Your task to perform on an android device: Open notification settings Image 0: 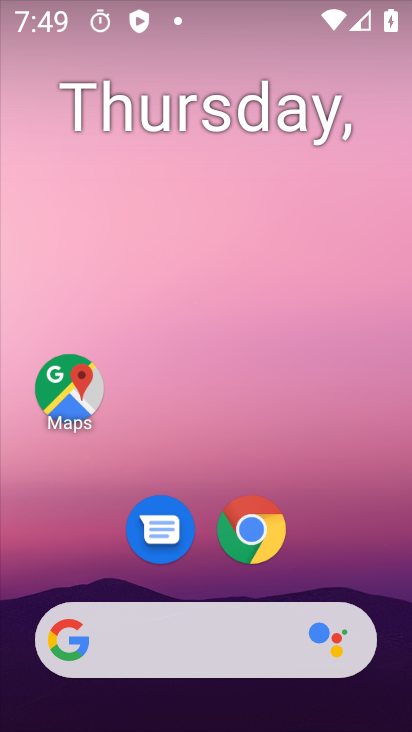
Step 0: drag from (383, 638) to (364, 124)
Your task to perform on an android device: Open notification settings Image 1: 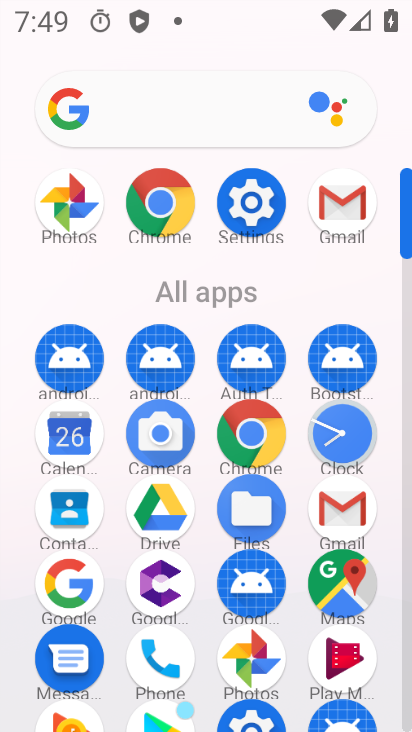
Step 1: click (251, 205)
Your task to perform on an android device: Open notification settings Image 2: 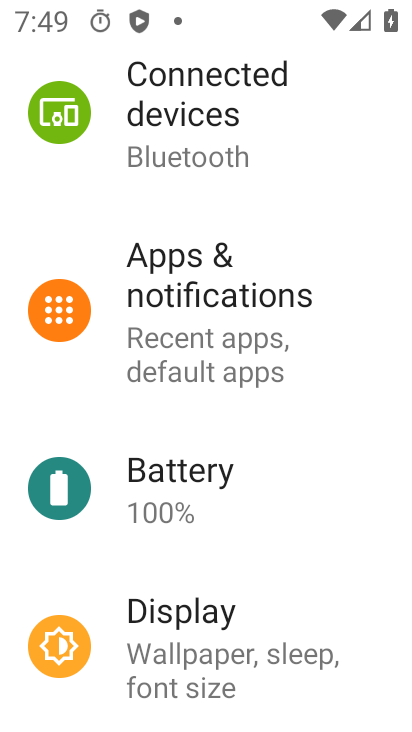
Step 2: click (193, 276)
Your task to perform on an android device: Open notification settings Image 3: 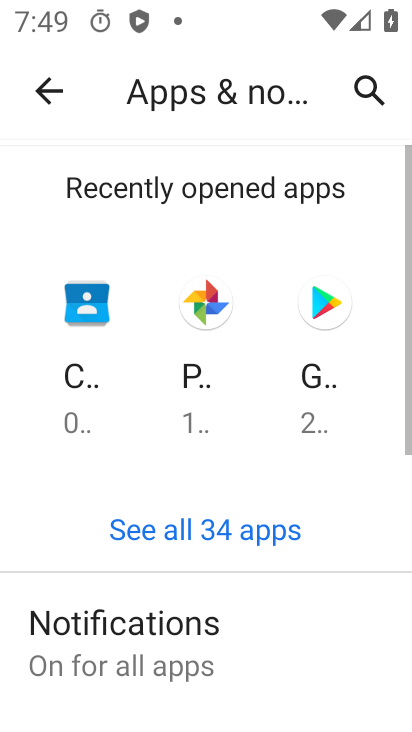
Step 3: click (145, 639)
Your task to perform on an android device: Open notification settings Image 4: 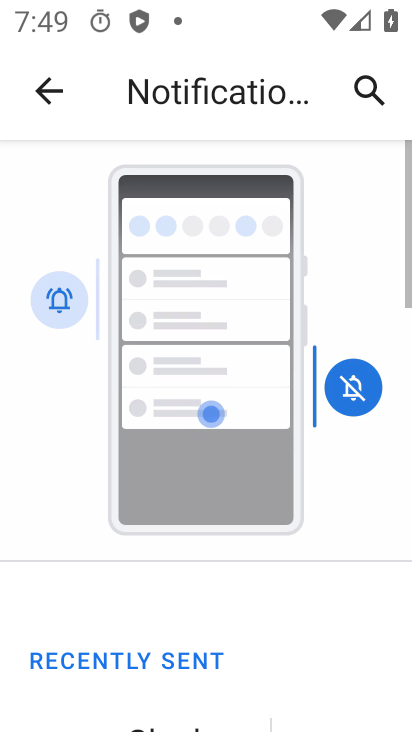
Step 4: drag from (275, 636) to (274, 188)
Your task to perform on an android device: Open notification settings Image 5: 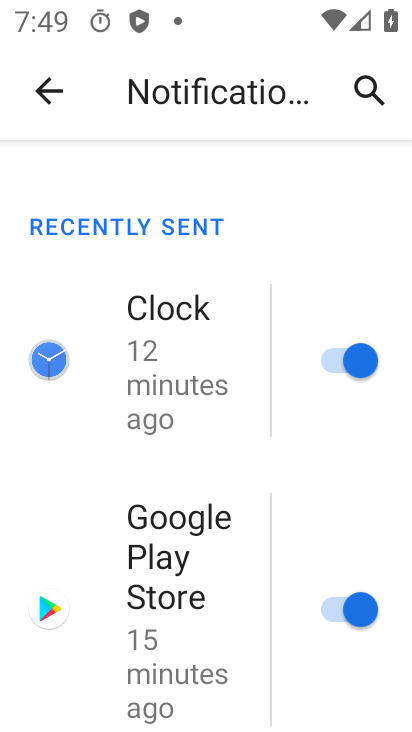
Step 5: drag from (271, 671) to (236, 269)
Your task to perform on an android device: Open notification settings Image 6: 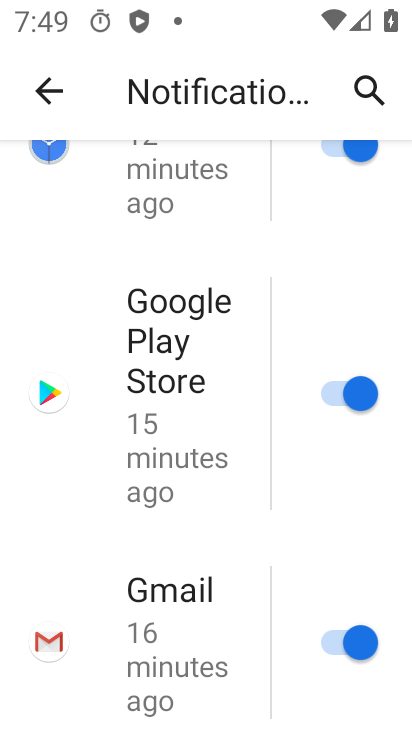
Step 6: drag from (249, 711) to (279, 13)
Your task to perform on an android device: Open notification settings Image 7: 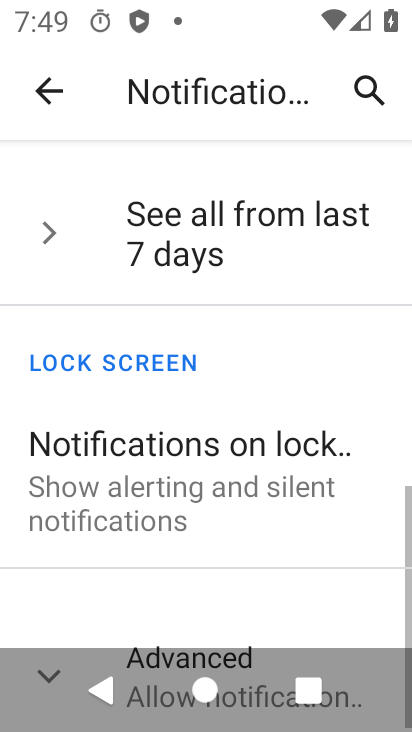
Step 7: drag from (290, 617) to (303, 197)
Your task to perform on an android device: Open notification settings Image 8: 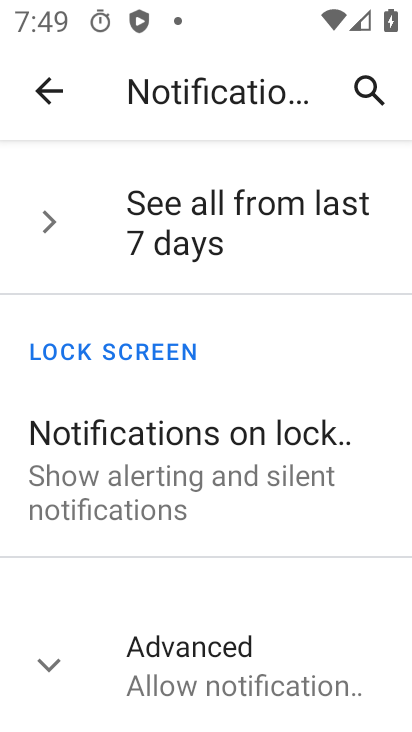
Step 8: click (43, 661)
Your task to perform on an android device: Open notification settings Image 9: 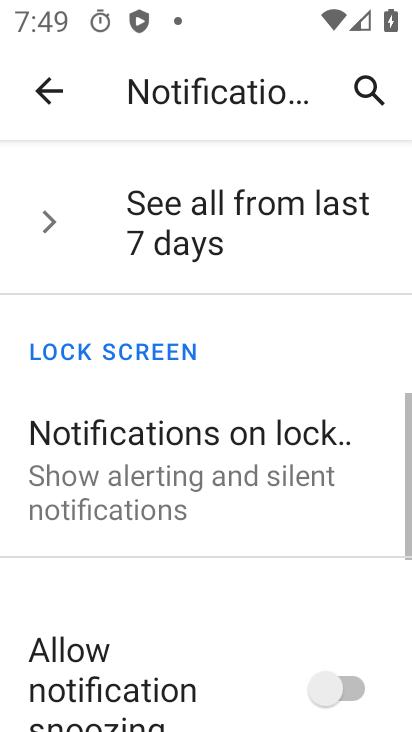
Step 9: task complete